Your task to perform on an android device: Show me the alarms in the clock app Image 0: 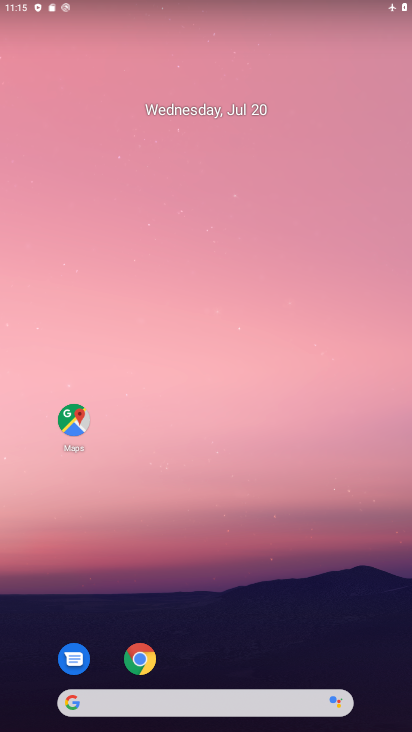
Step 0: drag from (213, 651) to (282, 95)
Your task to perform on an android device: Show me the alarms in the clock app Image 1: 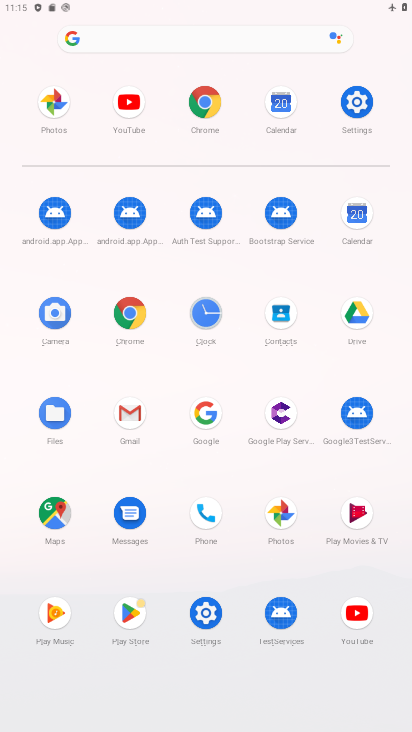
Step 1: click (209, 316)
Your task to perform on an android device: Show me the alarms in the clock app Image 2: 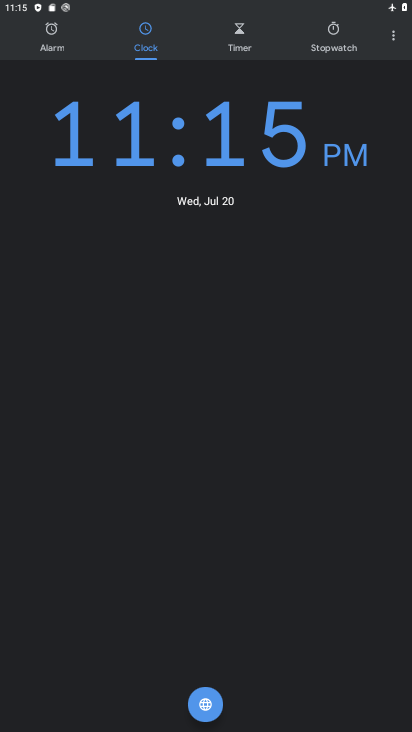
Step 2: click (61, 42)
Your task to perform on an android device: Show me the alarms in the clock app Image 3: 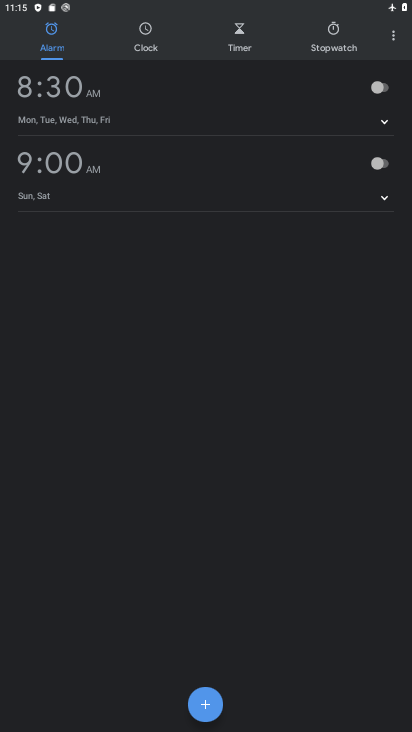
Step 3: task complete